Your task to perform on an android device: see creations saved in the google photos Image 0: 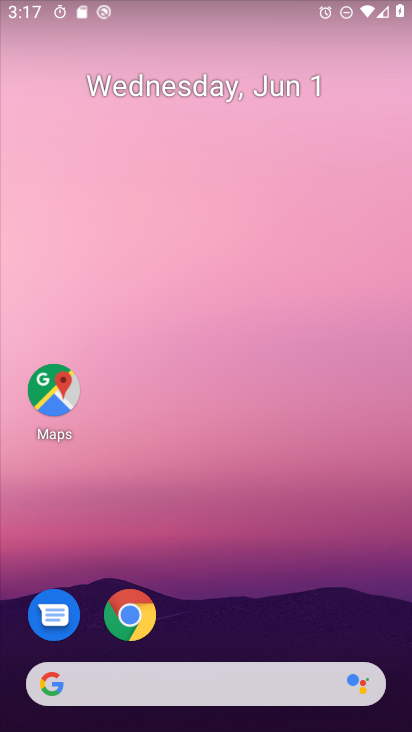
Step 0: drag from (285, 692) to (290, 2)
Your task to perform on an android device: see creations saved in the google photos Image 1: 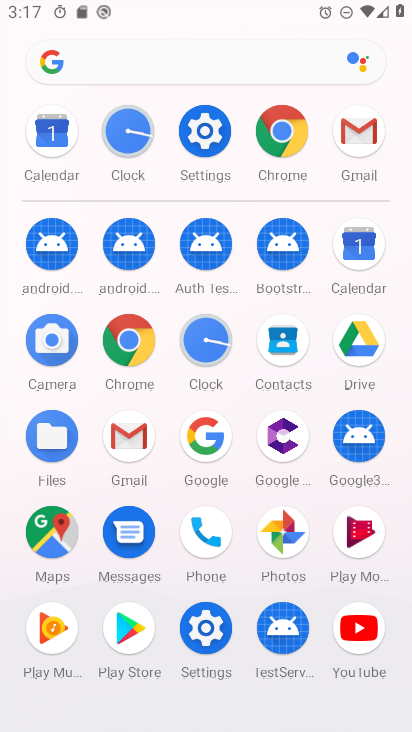
Step 1: click (272, 549)
Your task to perform on an android device: see creations saved in the google photos Image 2: 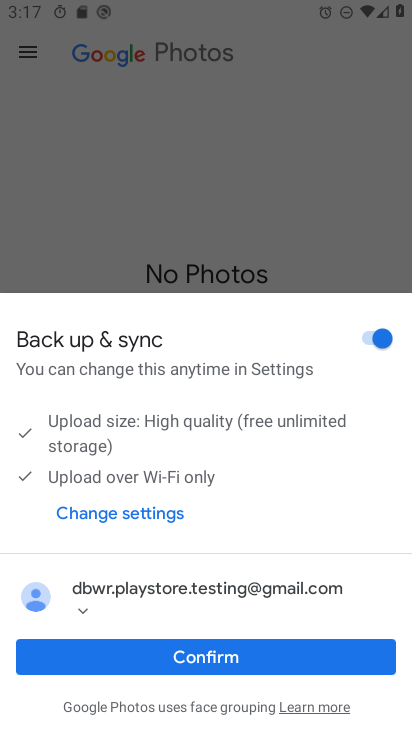
Step 2: click (235, 659)
Your task to perform on an android device: see creations saved in the google photos Image 3: 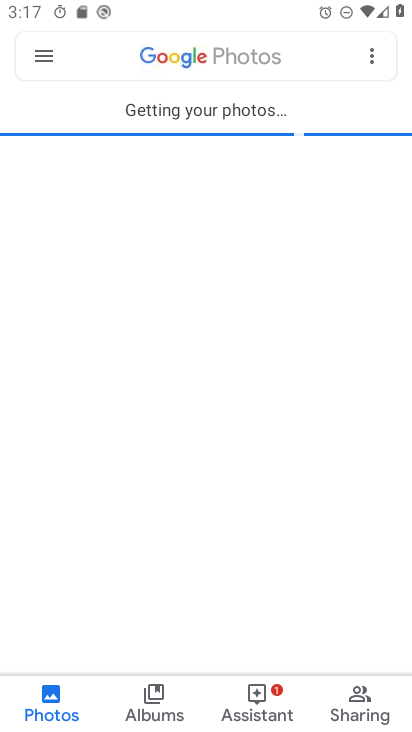
Step 3: click (36, 57)
Your task to perform on an android device: see creations saved in the google photos Image 4: 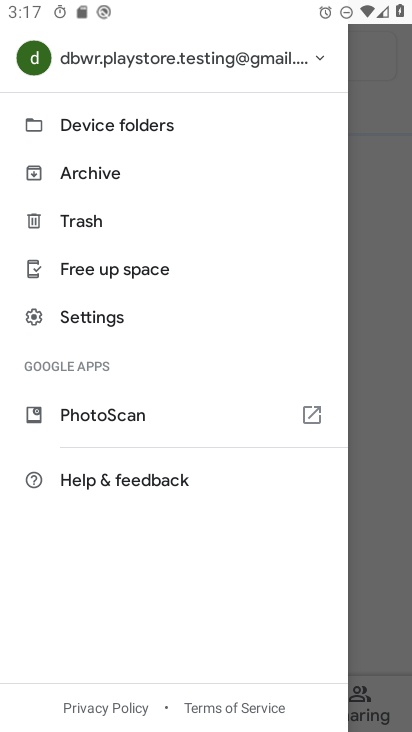
Step 4: click (378, 342)
Your task to perform on an android device: see creations saved in the google photos Image 5: 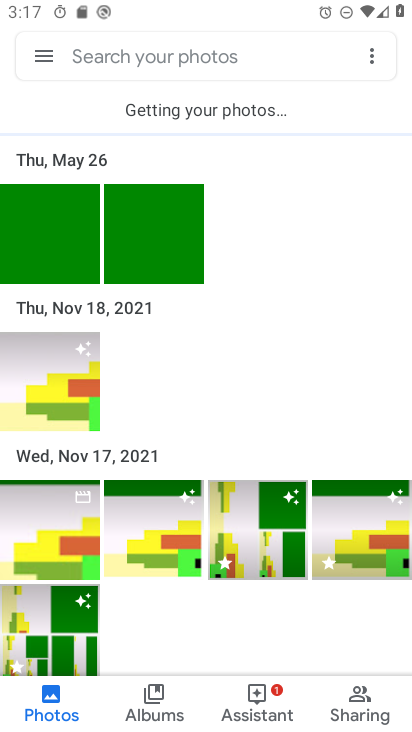
Step 5: click (359, 702)
Your task to perform on an android device: see creations saved in the google photos Image 6: 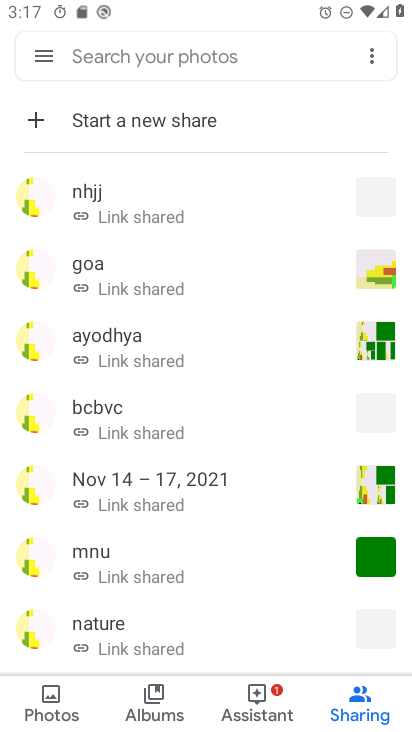
Step 6: task complete